Your task to perform on an android device: install app "WhatsApp Messenger" Image 0: 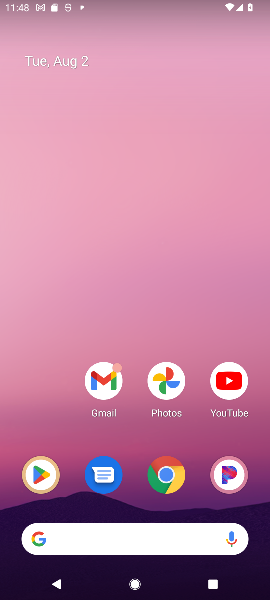
Step 0: click (42, 477)
Your task to perform on an android device: install app "WhatsApp Messenger" Image 1: 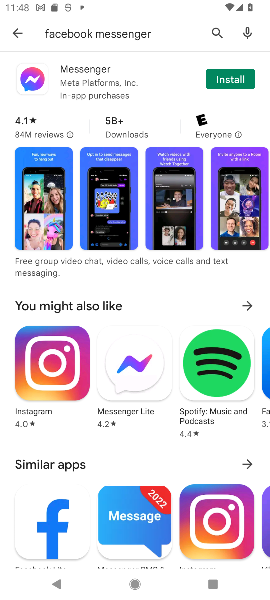
Step 1: click (214, 31)
Your task to perform on an android device: install app "WhatsApp Messenger" Image 2: 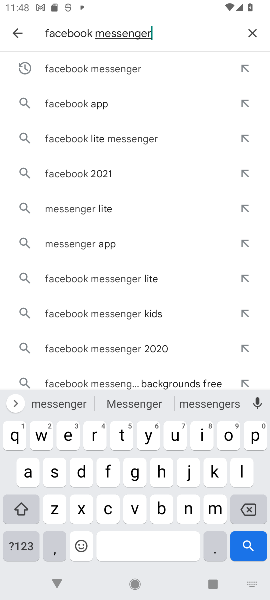
Step 2: click (255, 31)
Your task to perform on an android device: install app "WhatsApp Messenger" Image 3: 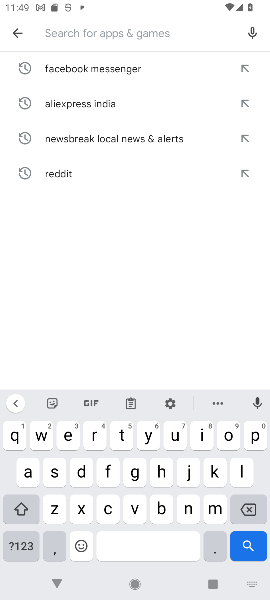
Step 3: type "WhatsApp Messenger"
Your task to perform on an android device: install app "WhatsApp Messenger" Image 4: 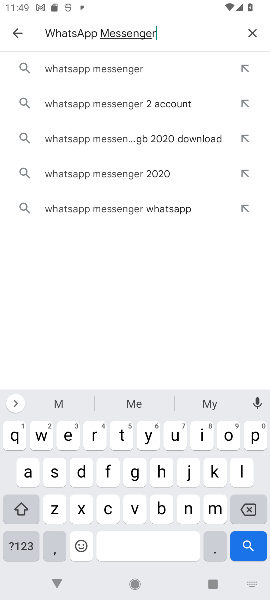
Step 4: type ""
Your task to perform on an android device: install app "WhatsApp Messenger" Image 5: 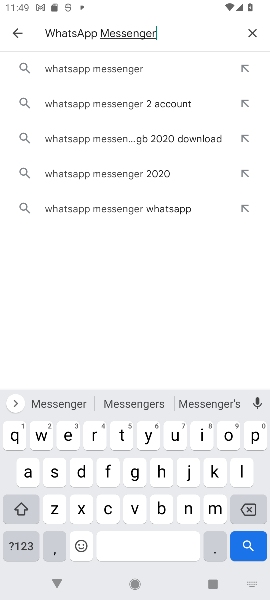
Step 5: click (98, 66)
Your task to perform on an android device: install app "WhatsApp Messenger" Image 6: 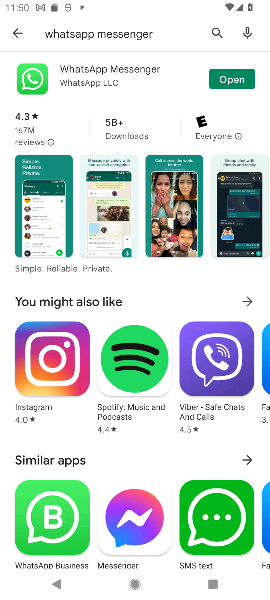
Step 6: task complete